Your task to perform on an android device: Search for alienware aurora on bestbuy, select the first entry, and add it to the cart. Image 0: 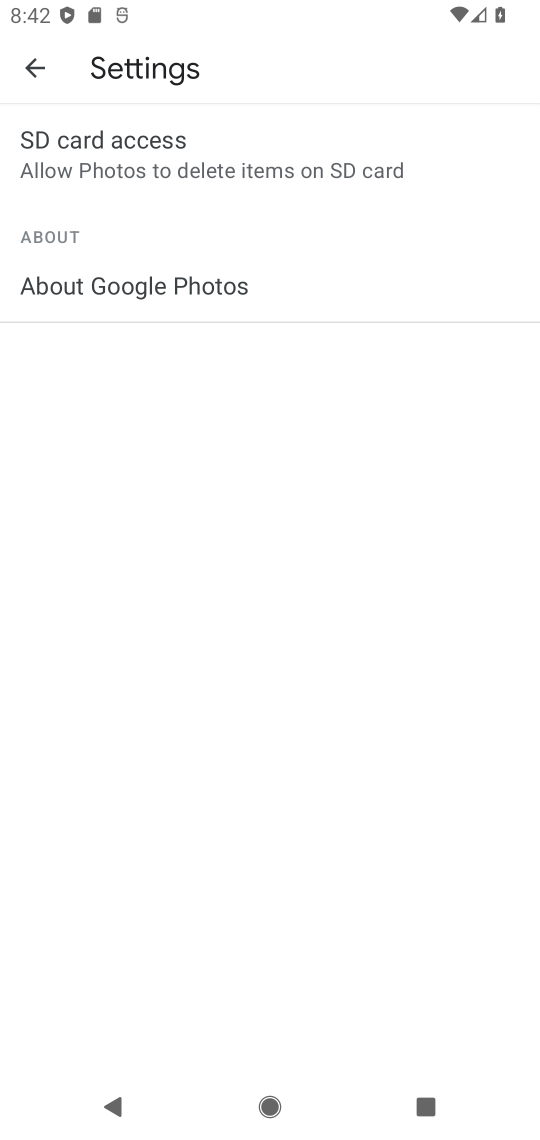
Step 0: press home button
Your task to perform on an android device: Search for alienware aurora on bestbuy, select the first entry, and add it to the cart. Image 1: 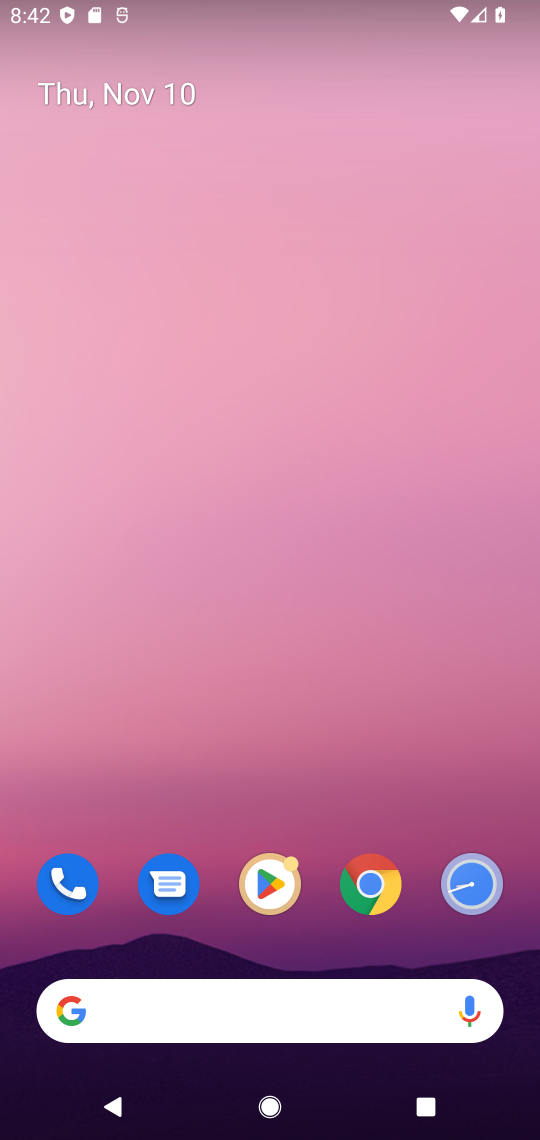
Step 1: click (225, 1011)
Your task to perform on an android device: Search for alienware aurora on bestbuy, select the first entry, and add it to the cart. Image 2: 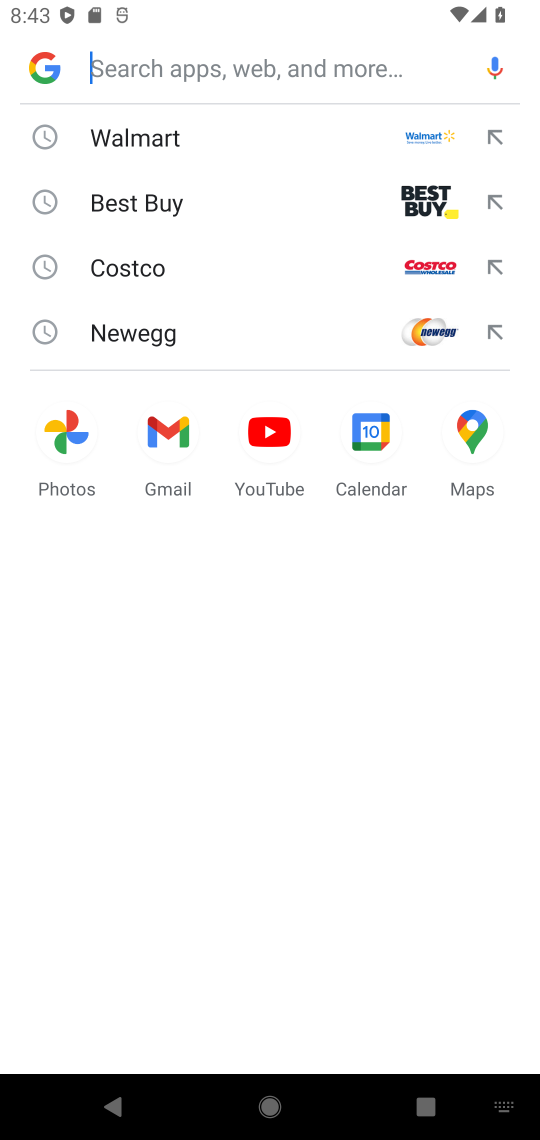
Step 2: click (176, 201)
Your task to perform on an android device: Search for alienware aurora on bestbuy, select the first entry, and add it to the cart. Image 3: 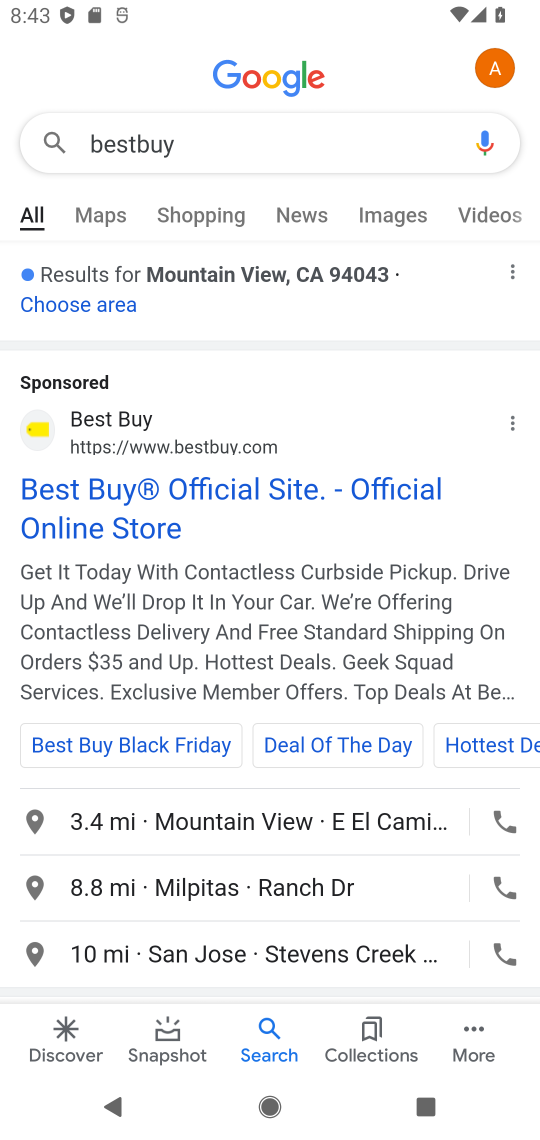
Step 3: click (97, 422)
Your task to perform on an android device: Search for alienware aurora on bestbuy, select the first entry, and add it to the cart. Image 4: 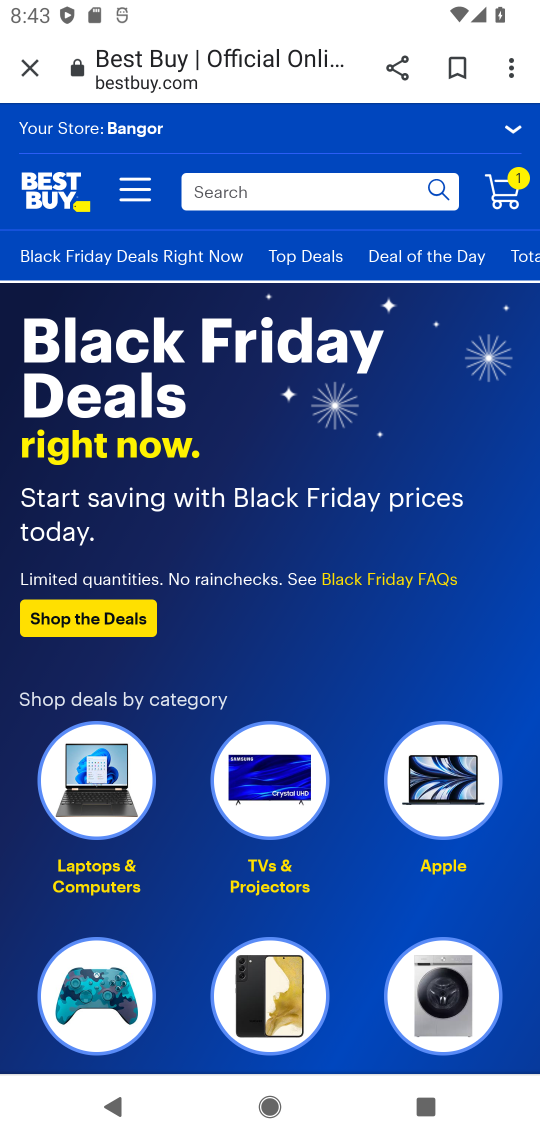
Step 4: click (272, 188)
Your task to perform on an android device: Search for alienware aurora on bestbuy, select the first entry, and add it to the cart. Image 5: 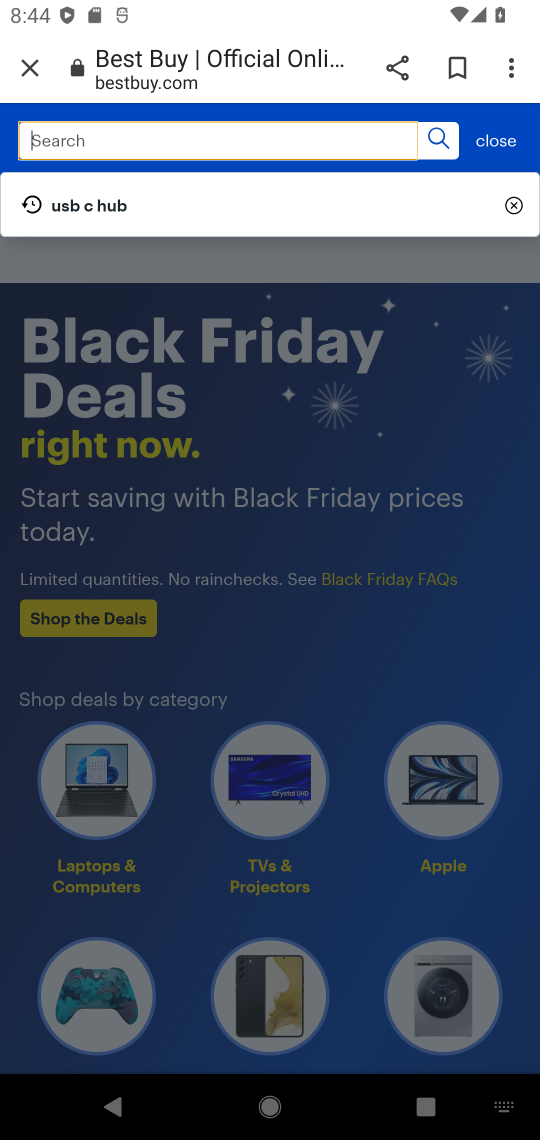
Step 5: type "alienware aurora "
Your task to perform on an android device: Search for alienware aurora on bestbuy, select the first entry, and add it to the cart. Image 6: 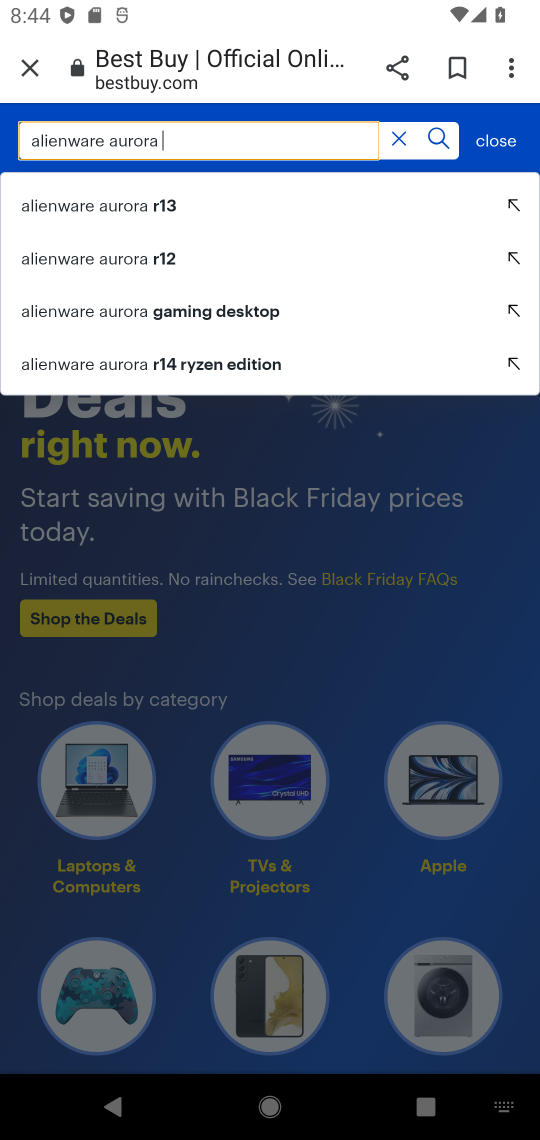
Step 6: click (143, 204)
Your task to perform on an android device: Search for alienware aurora on bestbuy, select the first entry, and add it to the cart. Image 7: 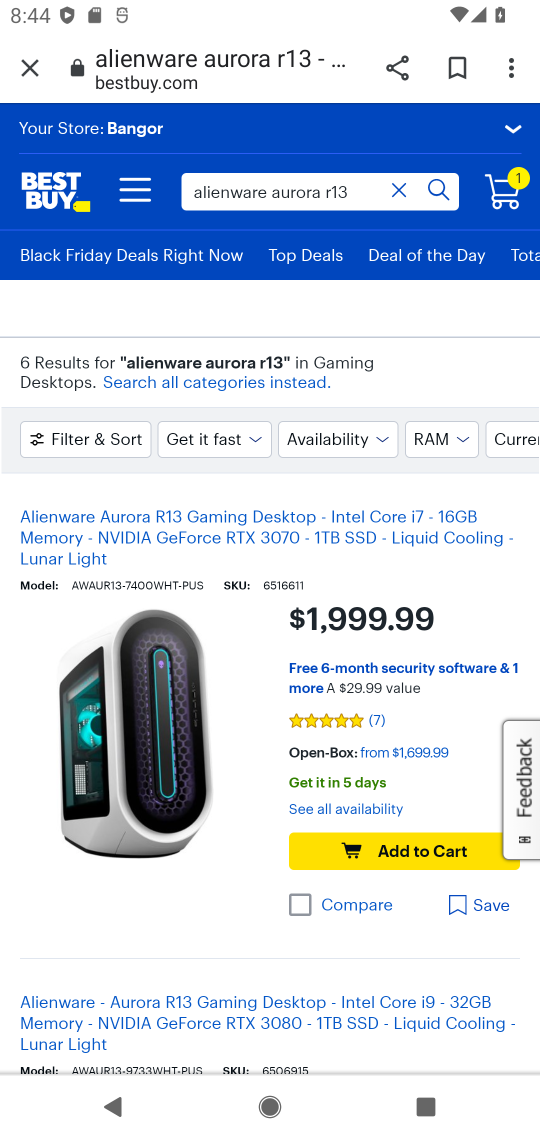
Step 7: click (407, 849)
Your task to perform on an android device: Search for alienware aurora on bestbuy, select the first entry, and add it to the cart. Image 8: 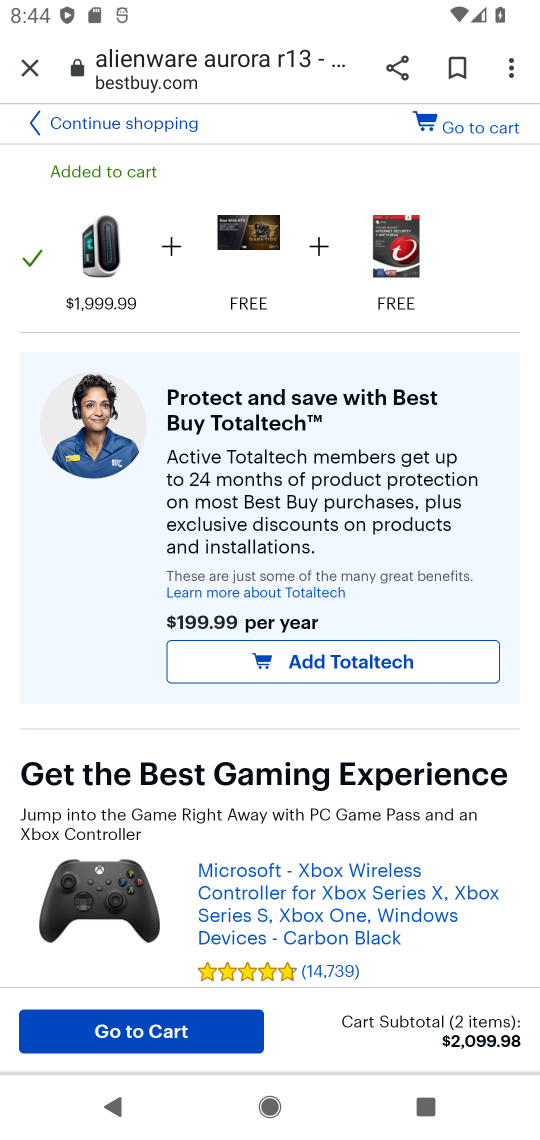
Step 8: click (451, 127)
Your task to perform on an android device: Search for alienware aurora on bestbuy, select the first entry, and add it to the cart. Image 9: 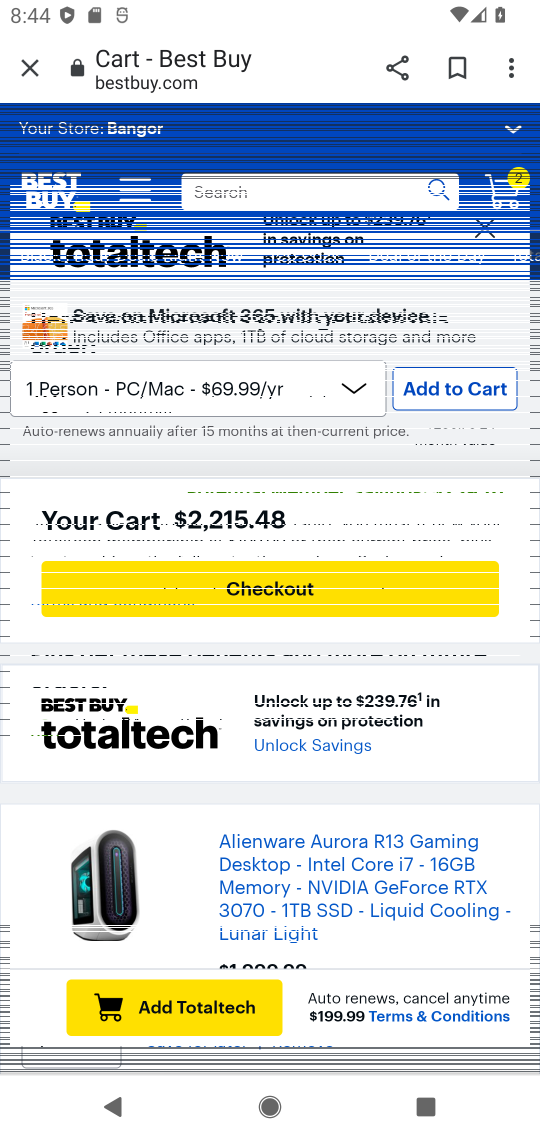
Step 9: click (509, 192)
Your task to perform on an android device: Search for alienware aurora on bestbuy, select the first entry, and add it to the cart. Image 10: 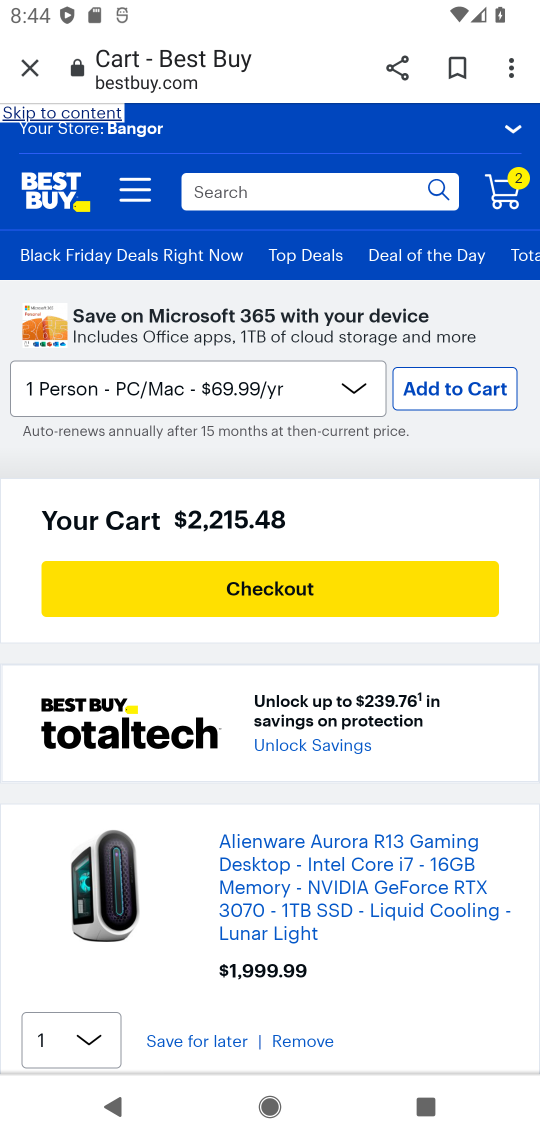
Step 10: task complete